Your task to perform on an android device: toggle javascript in the chrome app Image 0: 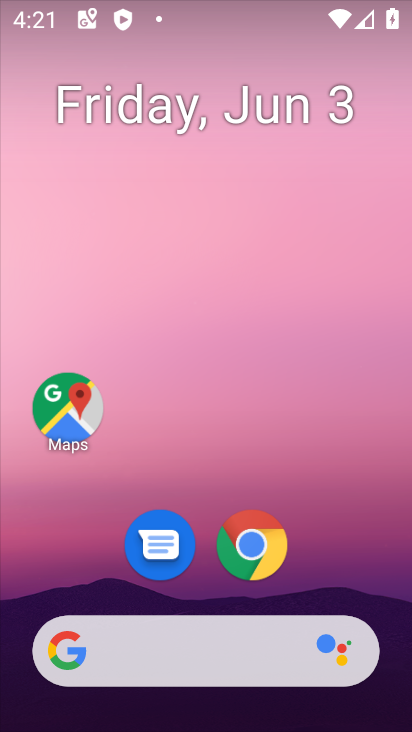
Step 0: drag from (85, 615) to (243, 131)
Your task to perform on an android device: toggle javascript in the chrome app Image 1: 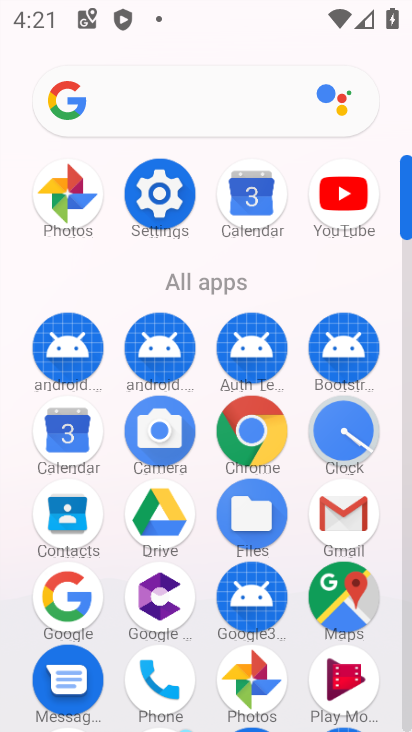
Step 1: drag from (231, 608) to (287, 303)
Your task to perform on an android device: toggle javascript in the chrome app Image 2: 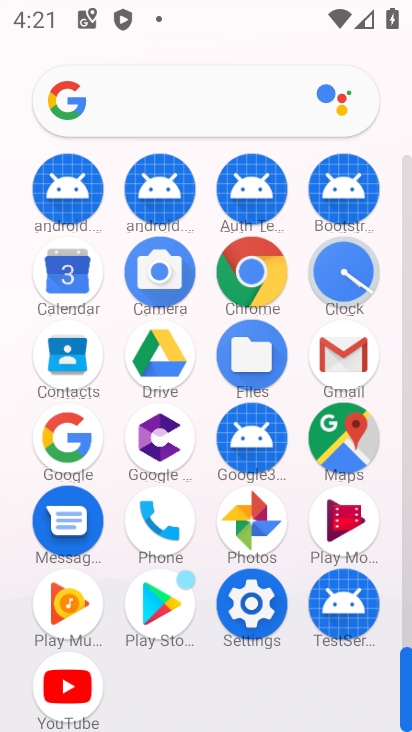
Step 2: click (239, 272)
Your task to perform on an android device: toggle javascript in the chrome app Image 3: 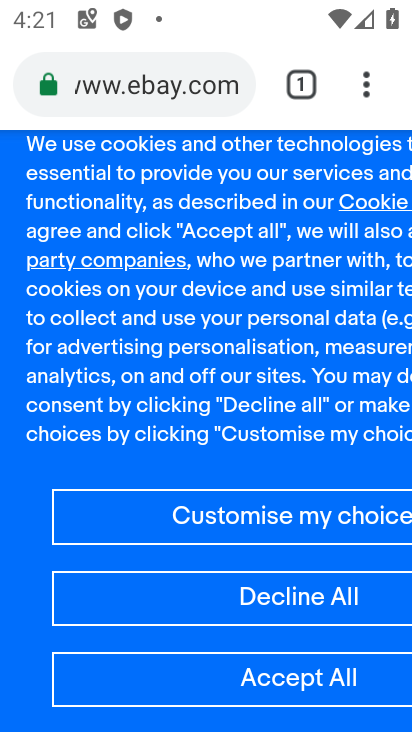
Step 3: drag from (386, 103) to (199, 605)
Your task to perform on an android device: toggle javascript in the chrome app Image 4: 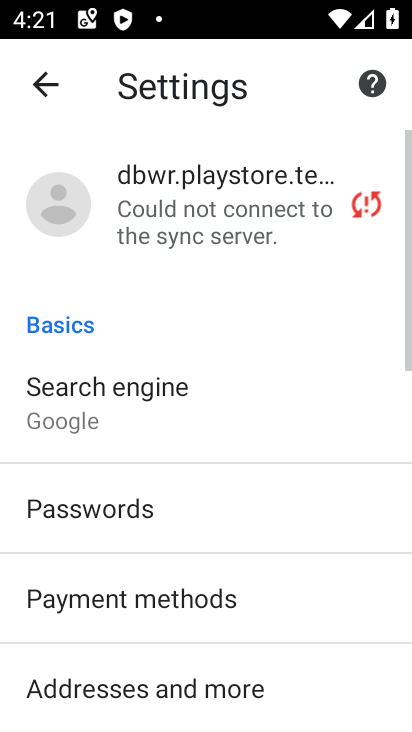
Step 4: drag from (152, 717) to (253, 284)
Your task to perform on an android device: toggle javascript in the chrome app Image 5: 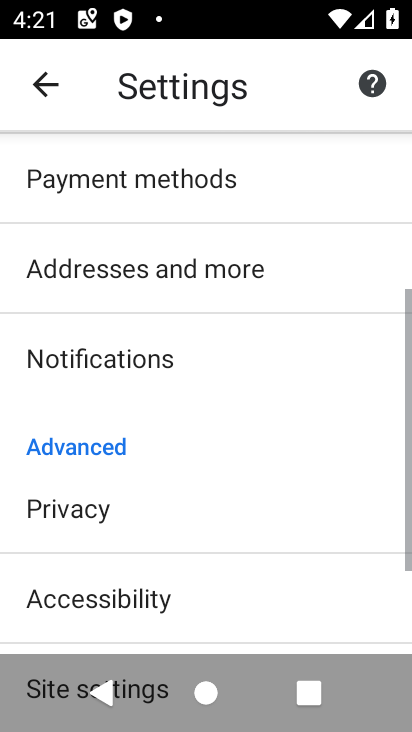
Step 5: drag from (157, 554) to (240, 319)
Your task to perform on an android device: toggle javascript in the chrome app Image 6: 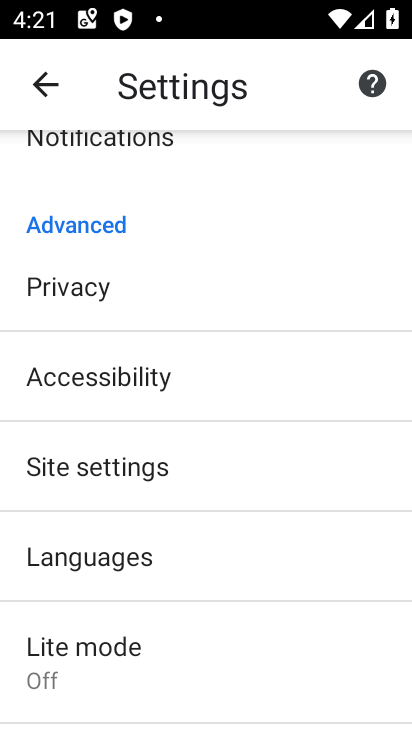
Step 6: drag from (157, 672) to (213, 351)
Your task to perform on an android device: toggle javascript in the chrome app Image 7: 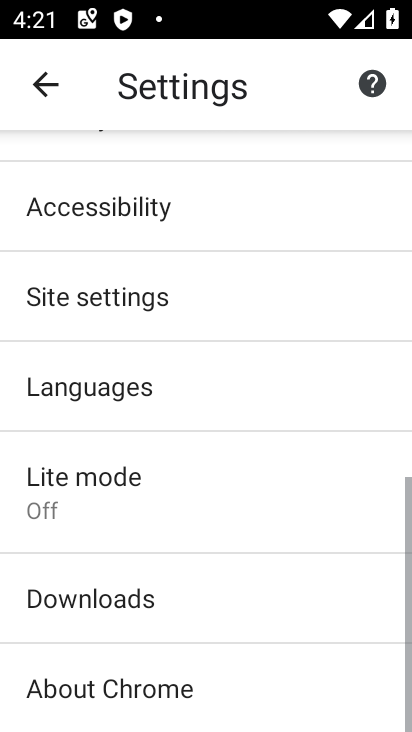
Step 7: drag from (159, 618) to (253, 238)
Your task to perform on an android device: toggle javascript in the chrome app Image 8: 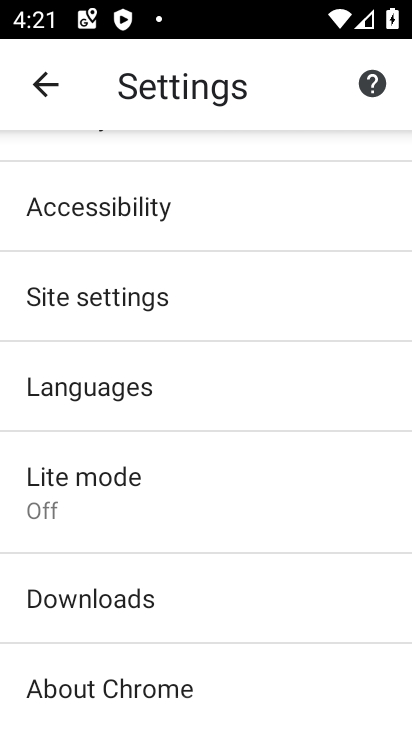
Step 8: click (208, 305)
Your task to perform on an android device: toggle javascript in the chrome app Image 9: 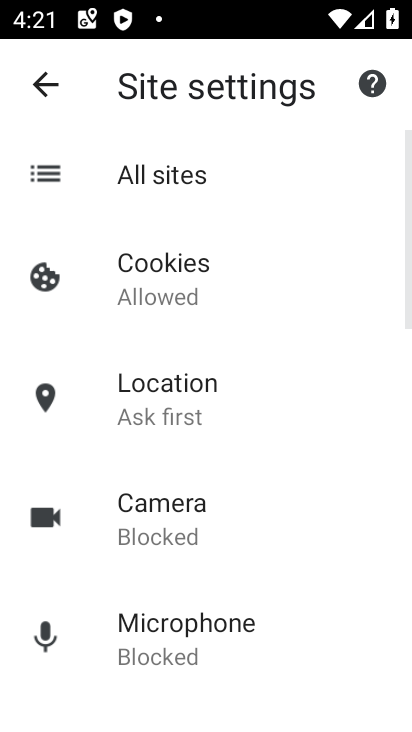
Step 9: drag from (210, 619) to (303, 238)
Your task to perform on an android device: toggle javascript in the chrome app Image 10: 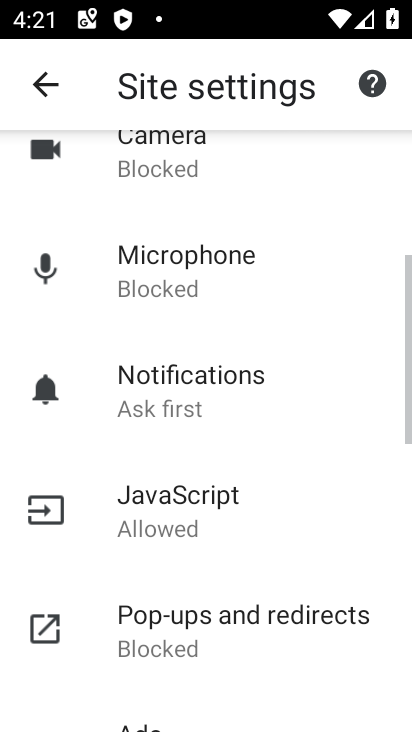
Step 10: click (208, 534)
Your task to perform on an android device: toggle javascript in the chrome app Image 11: 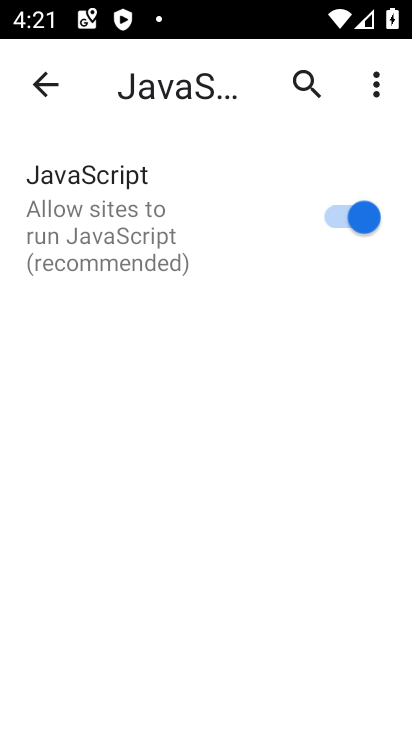
Step 11: click (342, 205)
Your task to perform on an android device: toggle javascript in the chrome app Image 12: 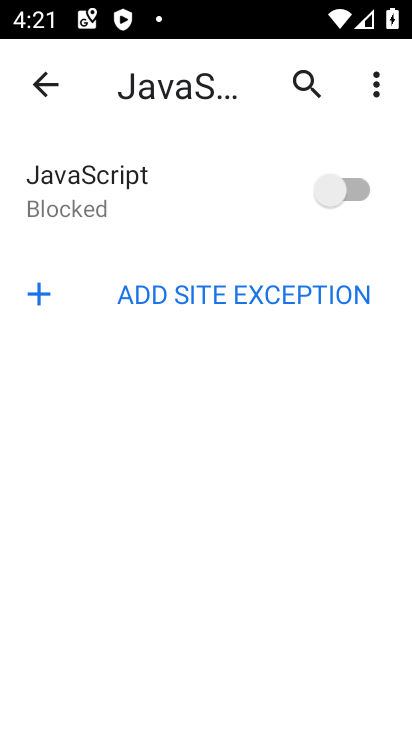
Step 12: task complete